Your task to perform on an android device: turn off location history Image 0: 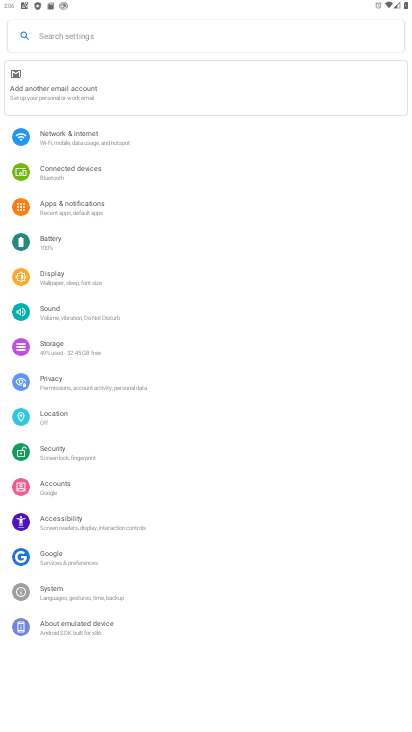
Step 0: click (55, 415)
Your task to perform on an android device: turn off location history Image 1: 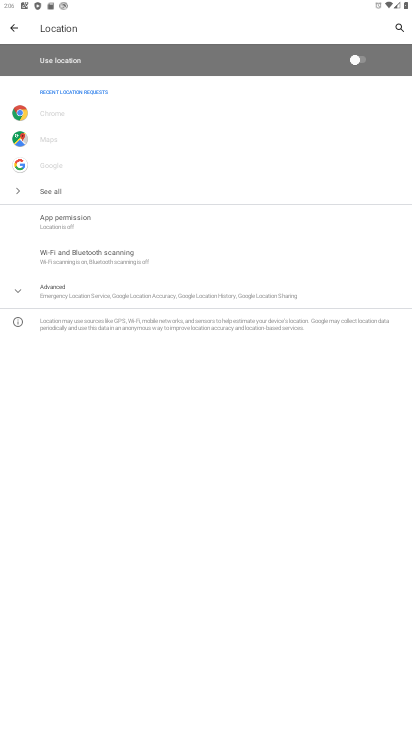
Step 1: click (23, 290)
Your task to perform on an android device: turn off location history Image 2: 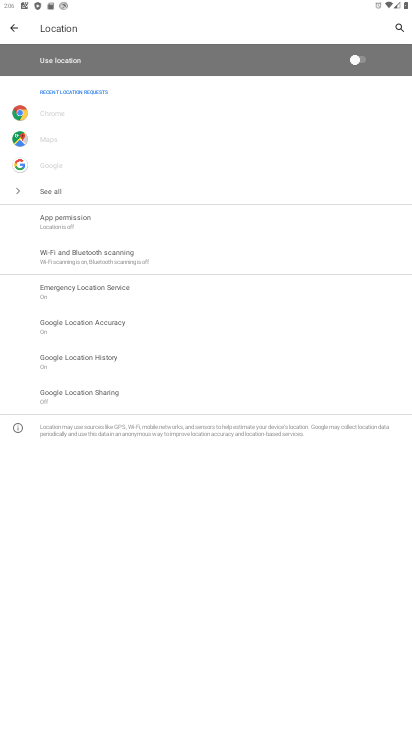
Step 2: click (53, 352)
Your task to perform on an android device: turn off location history Image 3: 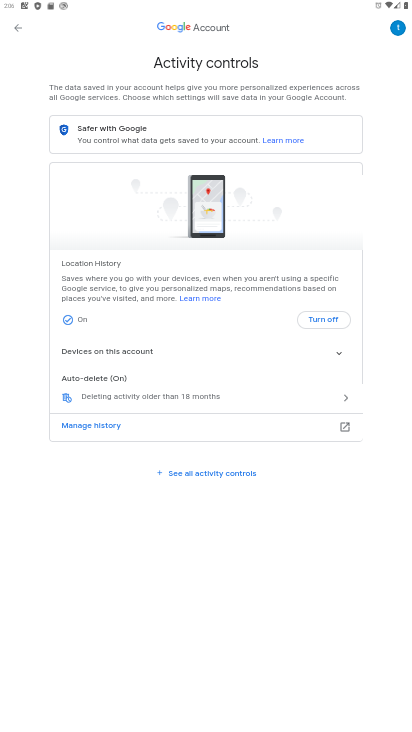
Step 3: click (308, 318)
Your task to perform on an android device: turn off location history Image 4: 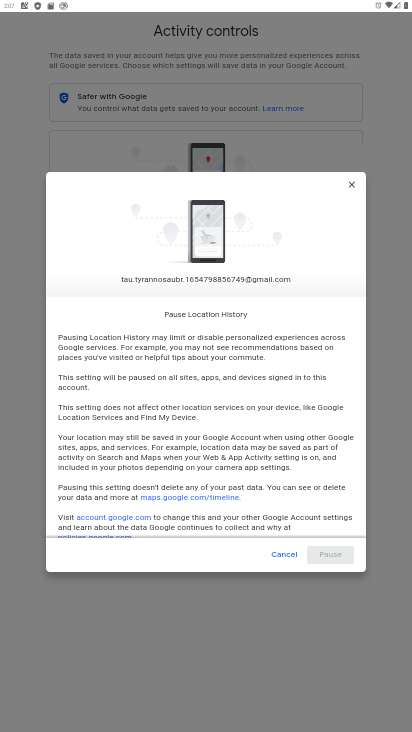
Step 4: task complete